Your task to perform on an android device: turn off location history Image 0: 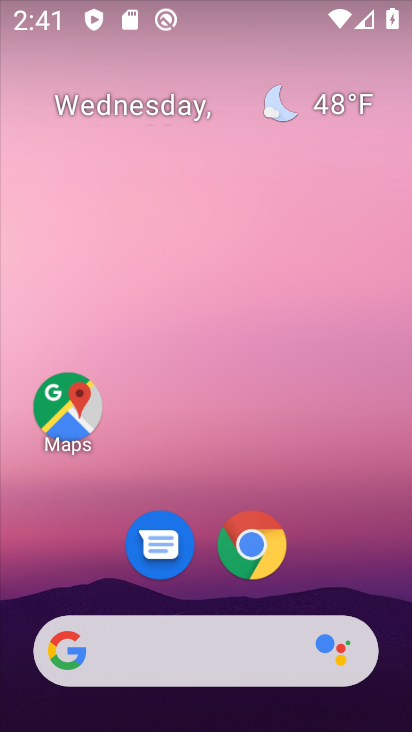
Step 0: drag from (274, 474) to (299, 148)
Your task to perform on an android device: turn off location history Image 1: 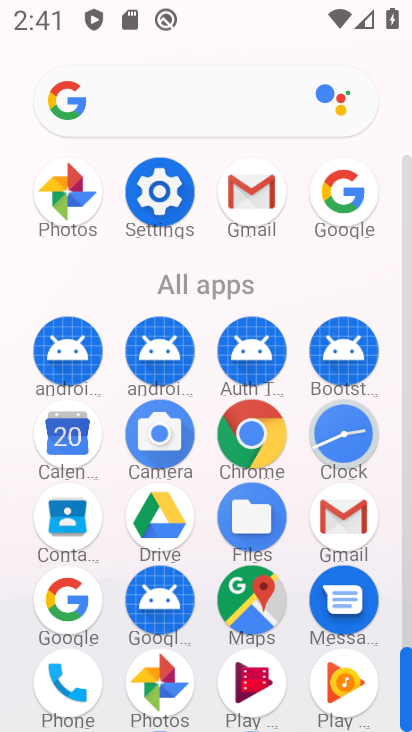
Step 1: click (169, 178)
Your task to perform on an android device: turn off location history Image 2: 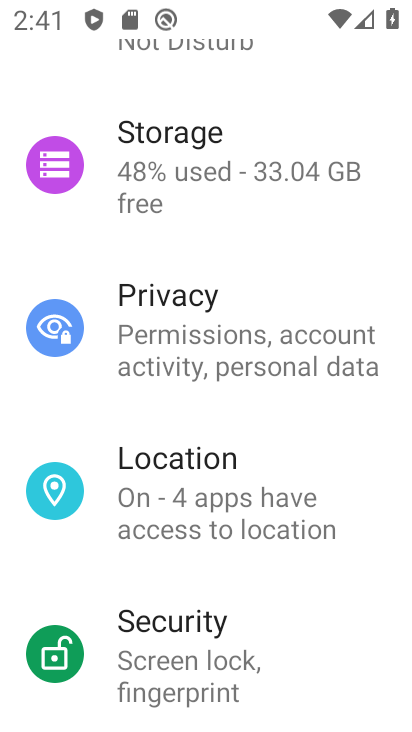
Step 2: click (228, 484)
Your task to perform on an android device: turn off location history Image 3: 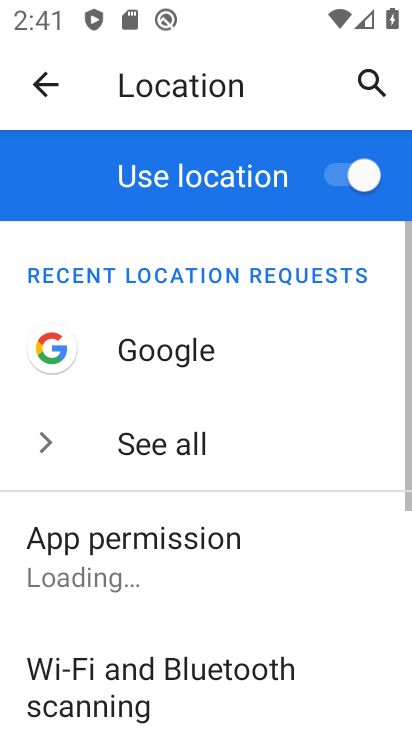
Step 3: drag from (281, 616) to (264, 150)
Your task to perform on an android device: turn off location history Image 4: 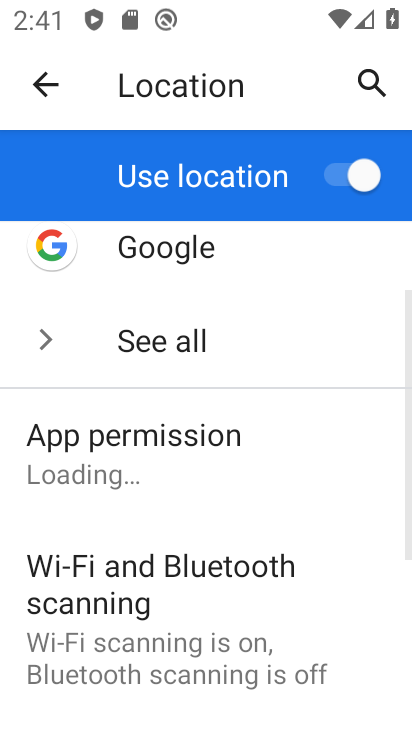
Step 4: drag from (235, 610) to (267, 34)
Your task to perform on an android device: turn off location history Image 5: 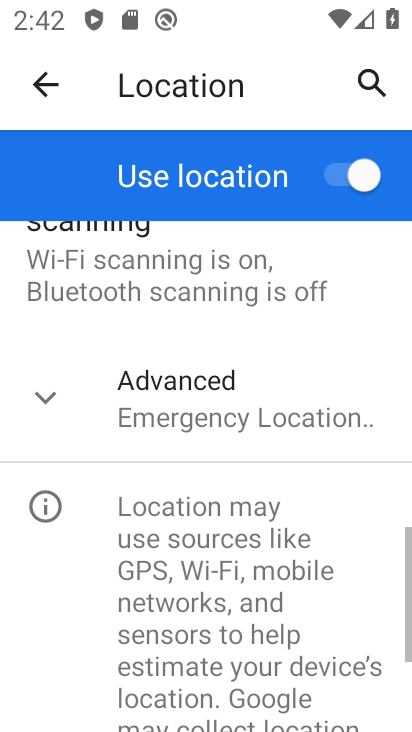
Step 5: click (269, 416)
Your task to perform on an android device: turn off location history Image 6: 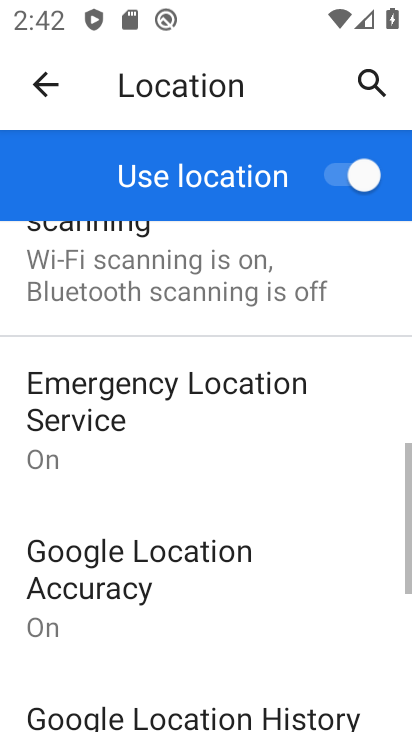
Step 6: drag from (257, 543) to (272, 131)
Your task to perform on an android device: turn off location history Image 7: 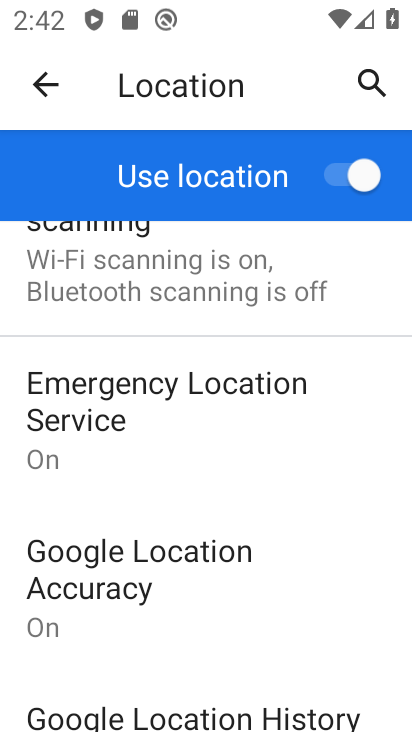
Step 7: click (261, 716)
Your task to perform on an android device: turn off location history Image 8: 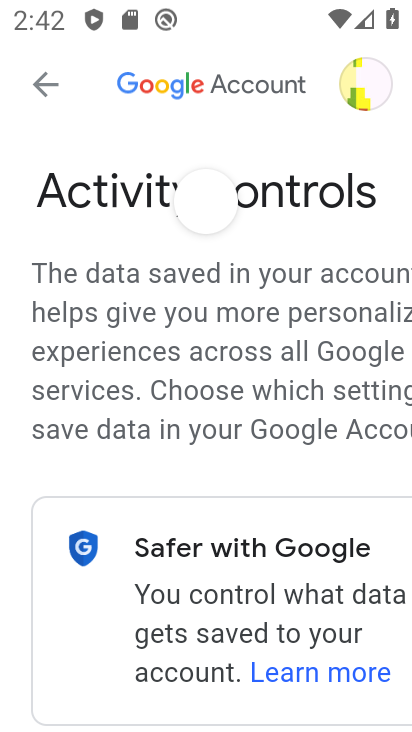
Step 8: task complete